Your task to perform on an android device: Open privacy settings Image 0: 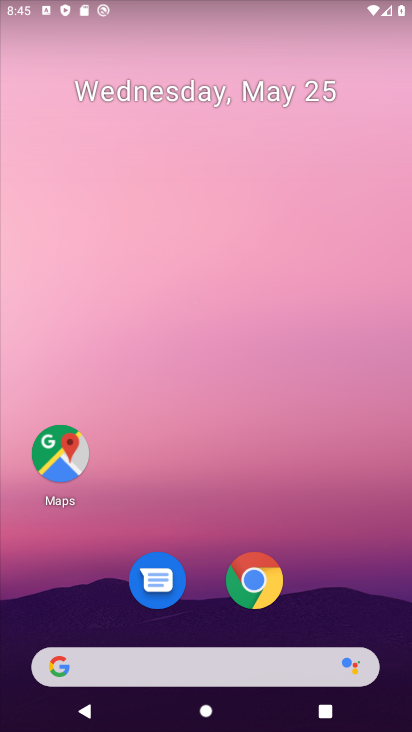
Step 0: drag from (17, 645) to (236, 209)
Your task to perform on an android device: Open privacy settings Image 1: 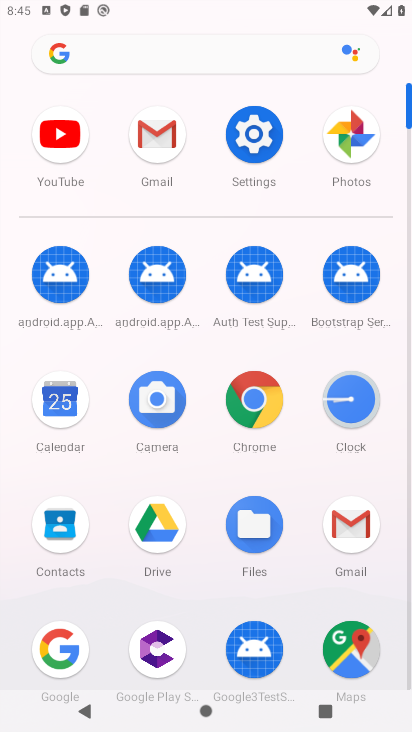
Step 1: click (236, 138)
Your task to perform on an android device: Open privacy settings Image 2: 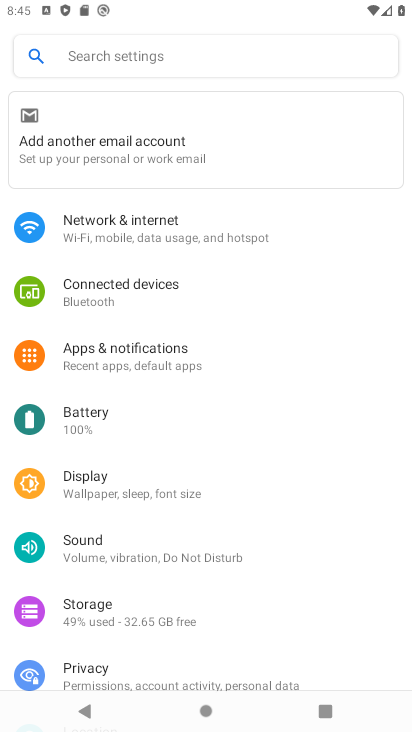
Step 2: drag from (15, 532) to (214, 171)
Your task to perform on an android device: Open privacy settings Image 3: 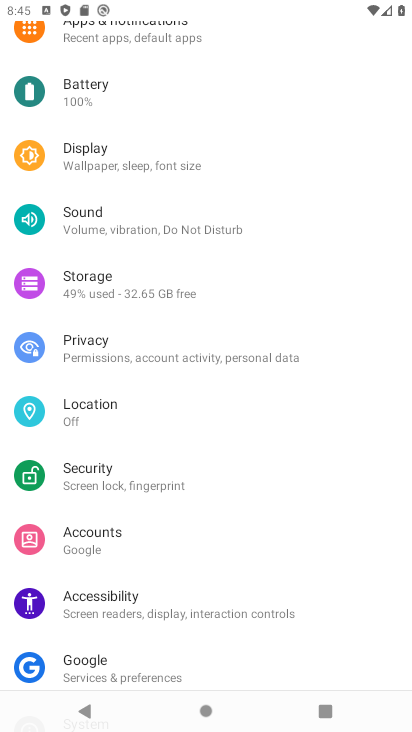
Step 3: click (96, 360)
Your task to perform on an android device: Open privacy settings Image 4: 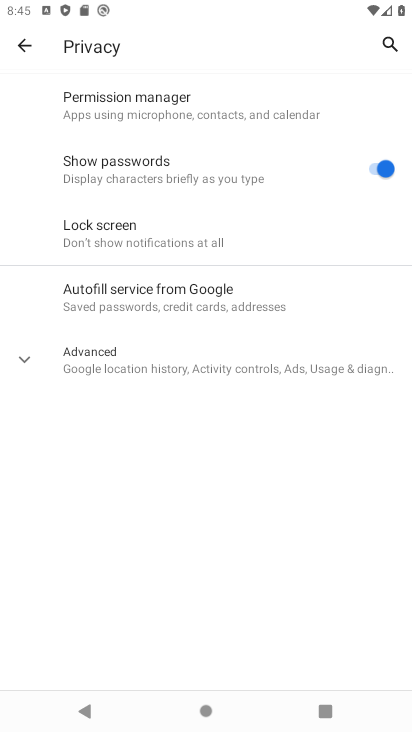
Step 4: task complete